Your task to perform on an android device: Go to eBay Image 0: 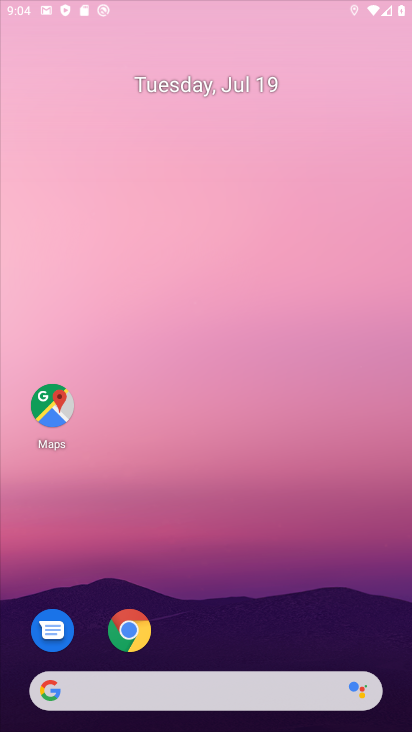
Step 0: drag from (26, 691) to (236, 169)
Your task to perform on an android device: Go to eBay Image 1: 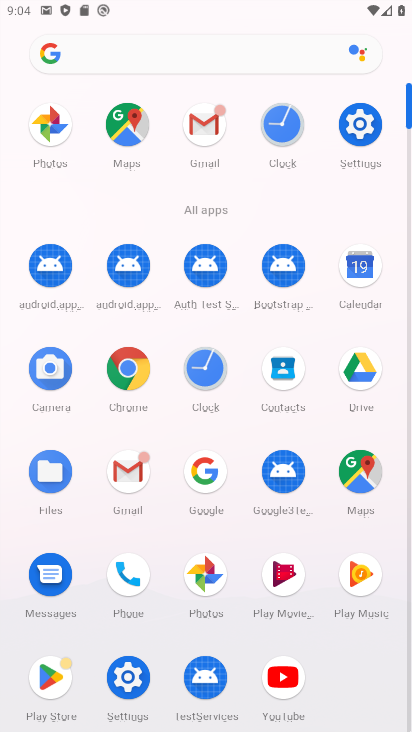
Step 1: click (102, 51)
Your task to perform on an android device: Go to eBay Image 2: 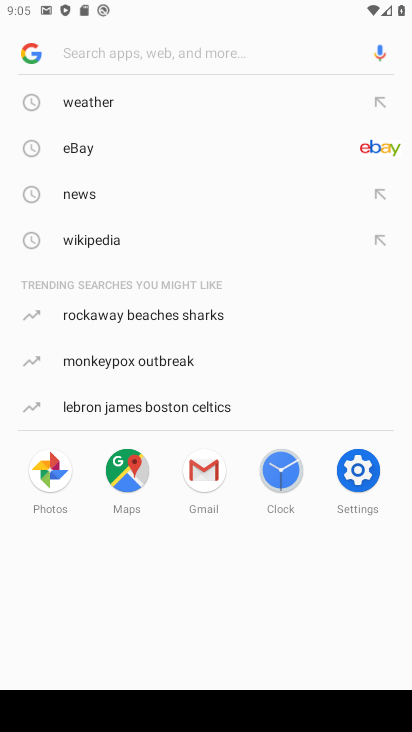
Step 2: type "eBay"
Your task to perform on an android device: Go to eBay Image 3: 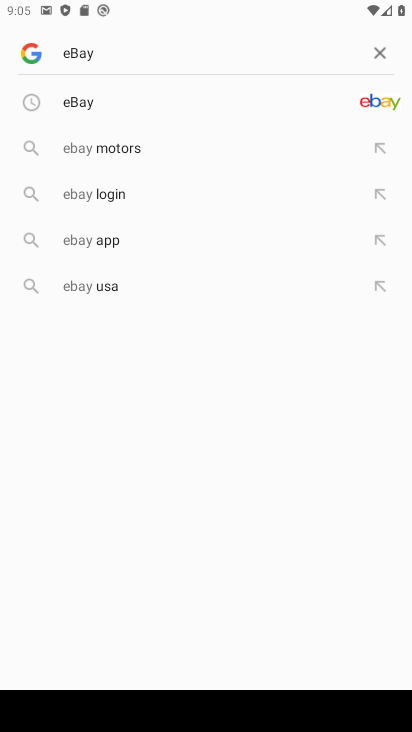
Step 3: click (83, 99)
Your task to perform on an android device: Go to eBay Image 4: 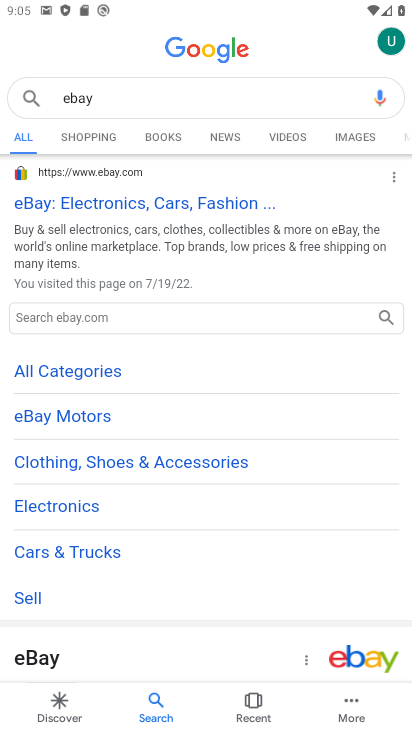
Step 4: task complete